Your task to perform on an android device: Open network settings Image 0: 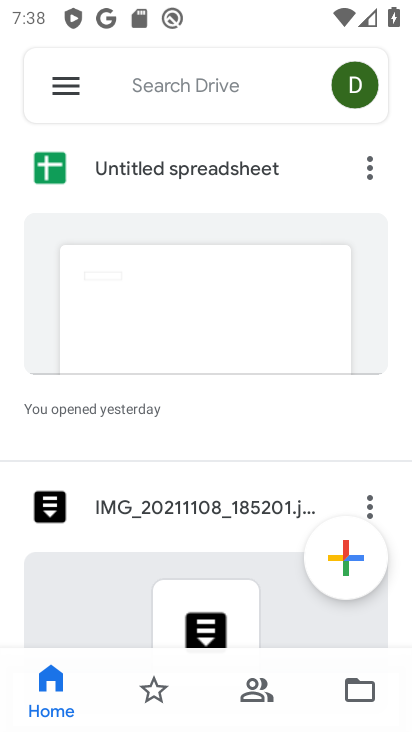
Step 0: press home button
Your task to perform on an android device: Open network settings Image 1: 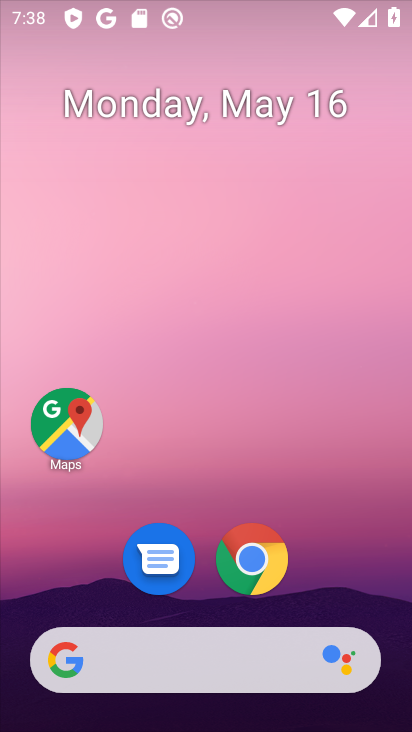
Step 1: drag from (280, 608) to (289, 169)
Your task to perform on an android device: Open network settings Image 2: 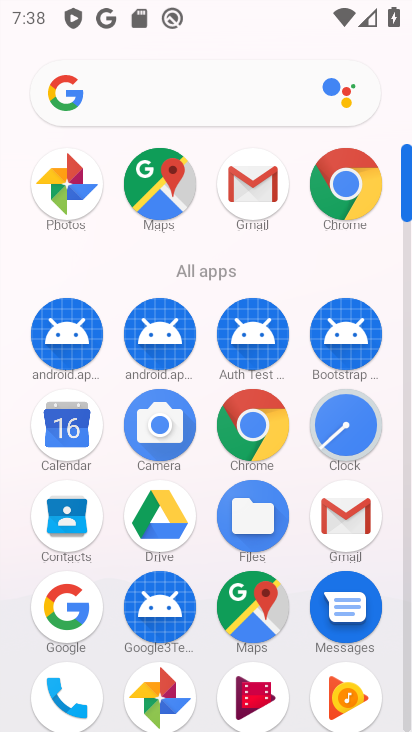
Step 2: drag from (302, 586) to (297, 233)
Your task to perform on an android device: Open network settings Image 3: 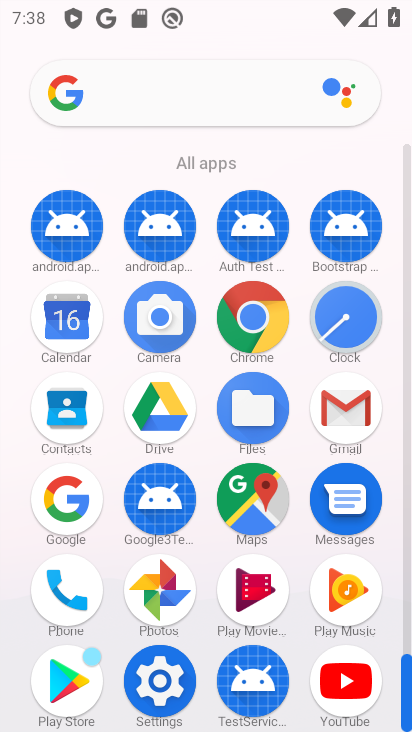
Step 3: click (181, 673)
Your task to perform on an android device: Open network settings Image 4: 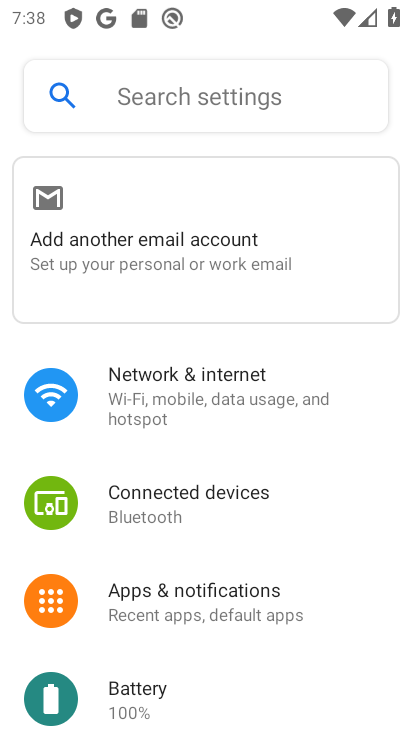
Step 4: click (176, 385)
Your task to perform on an android device: Open network settings Image 5: 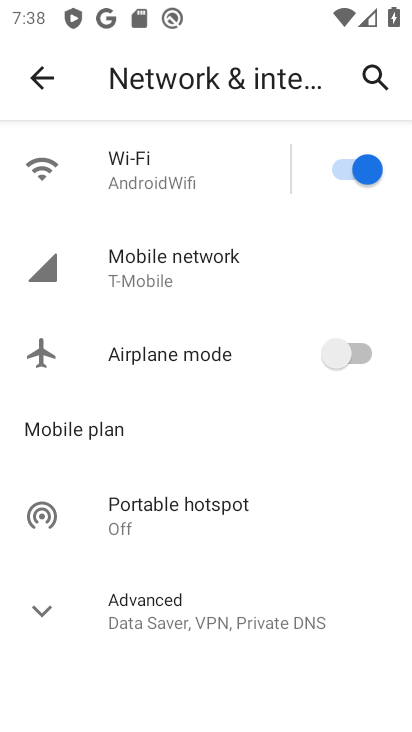
Step 5: task complete